Your task to perform on an android device: Open location settings Image 0: 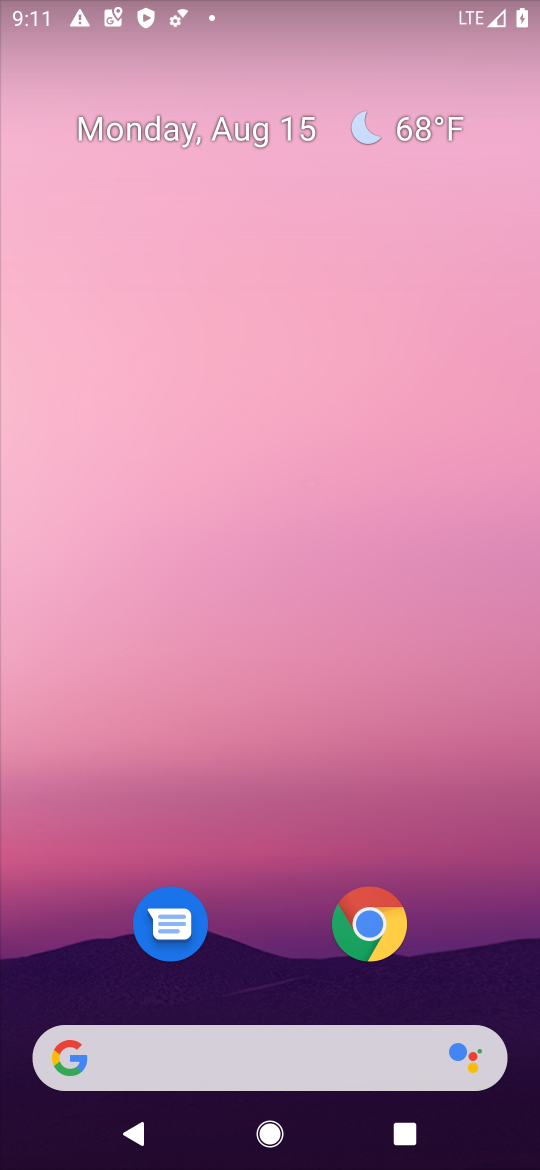
Step 0: drag from (503, 993) to (455, 246)
Your task to perform on an android device: Open location settings Image 1: 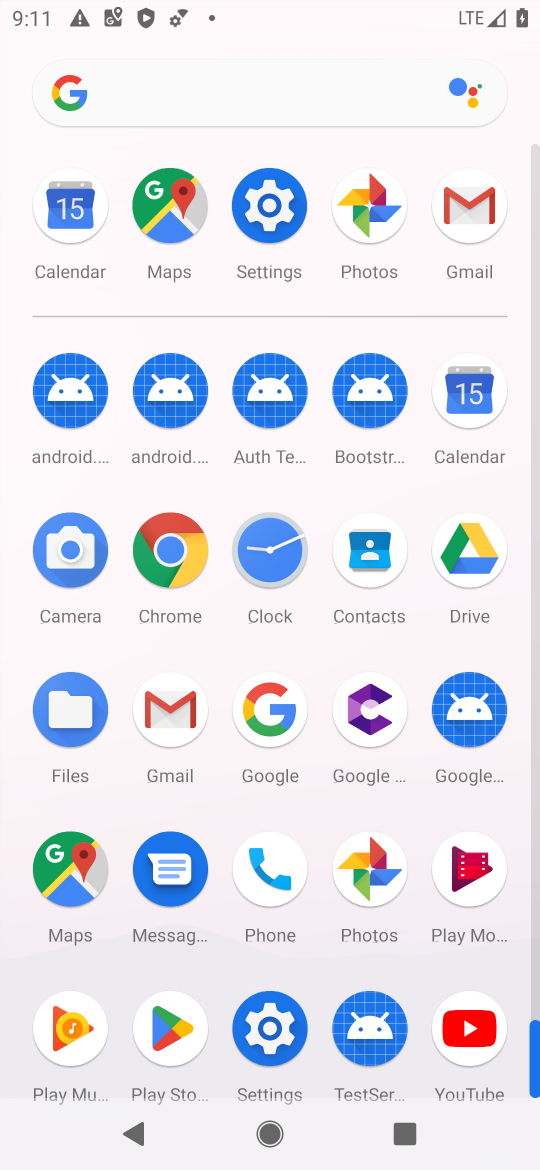
Step 1: click (269, 1032)
Your task to perform on an android device: Open location settings Image 2: 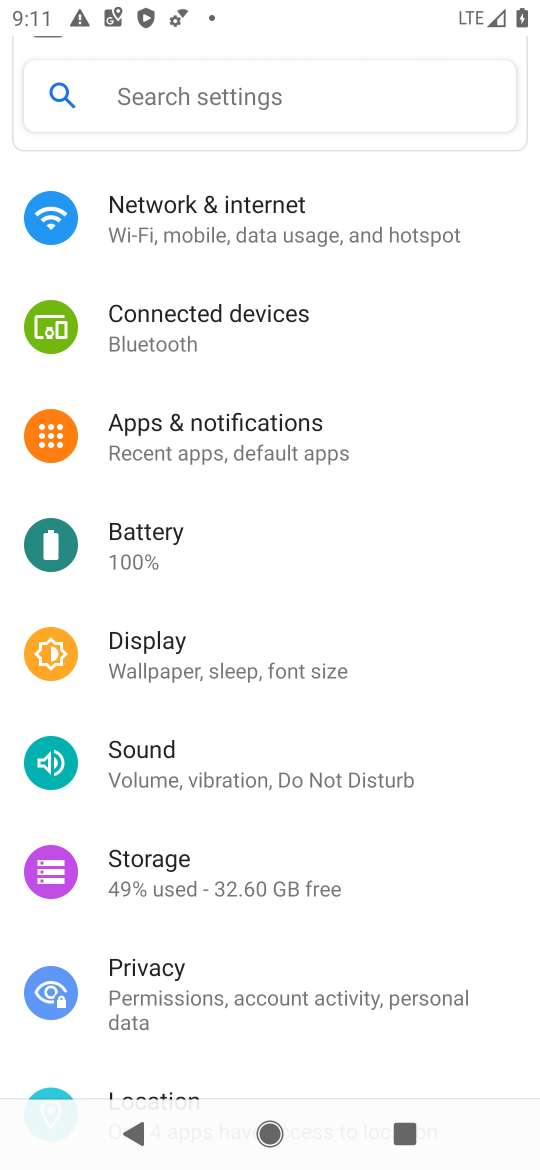
Step 2: drag from (477, 867) to (405, 405)
Your task to perform on an android device: Open location settings Image 3: 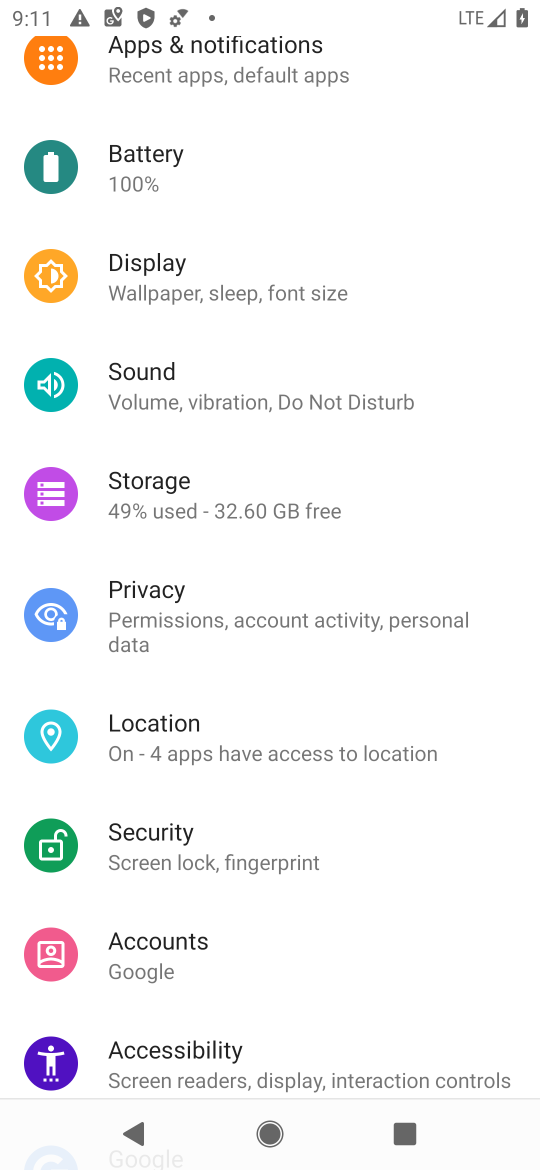
Step 3: click (171, 741)
Your task to perform on an android device: Open location settings Image 4: 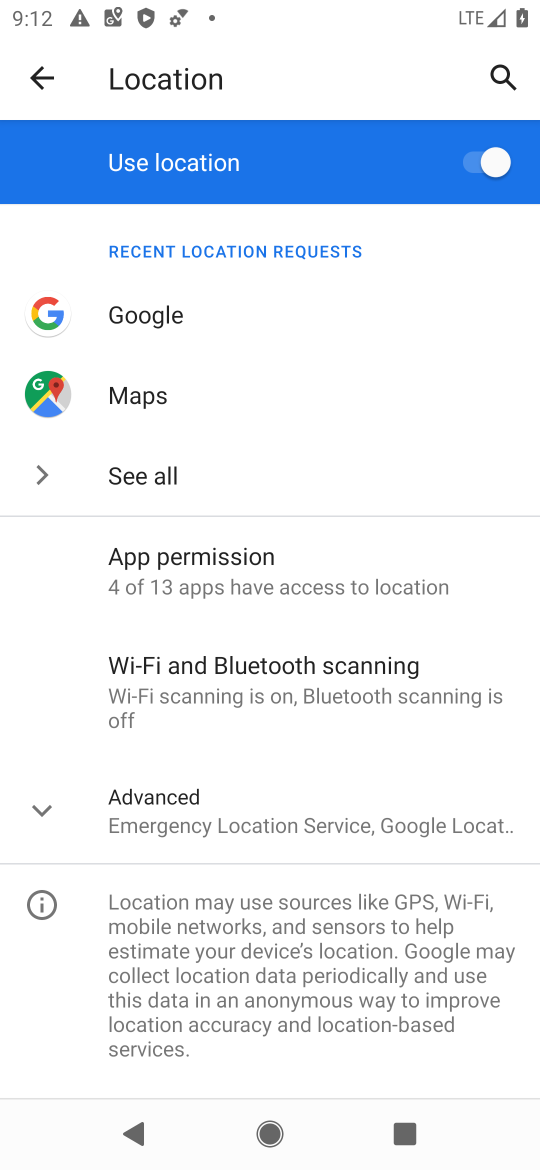
Step 4: click (37, 815)
Your task to perform on an android device: Open location settings Image 5: 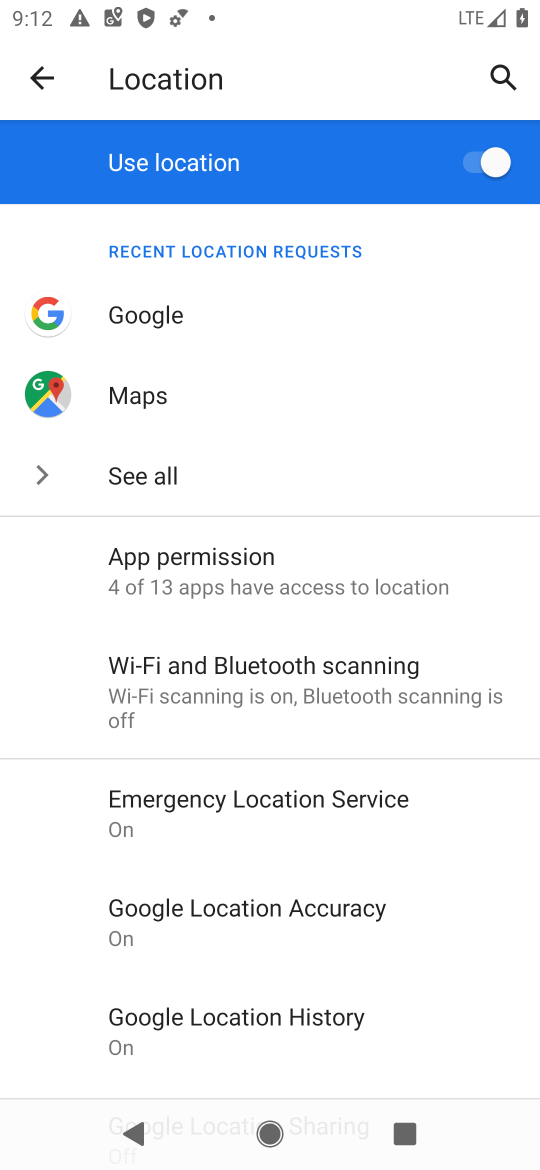
Step 5: task complete